Your task to perform on an android device: check data usage Image 0: 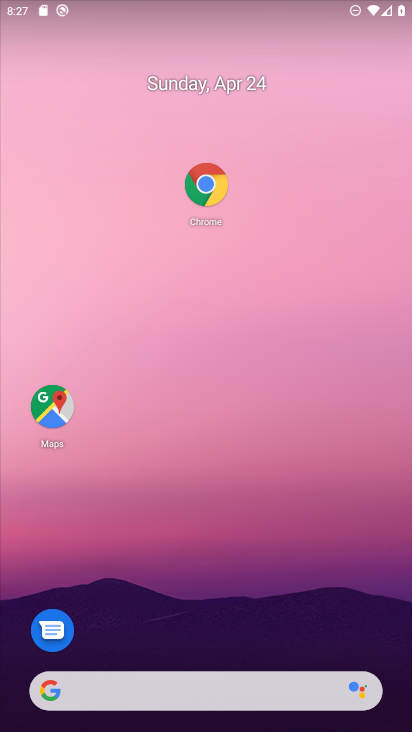
Step 0: click (271, 572)
Your task to perform on an android device: check data usage Image 1: 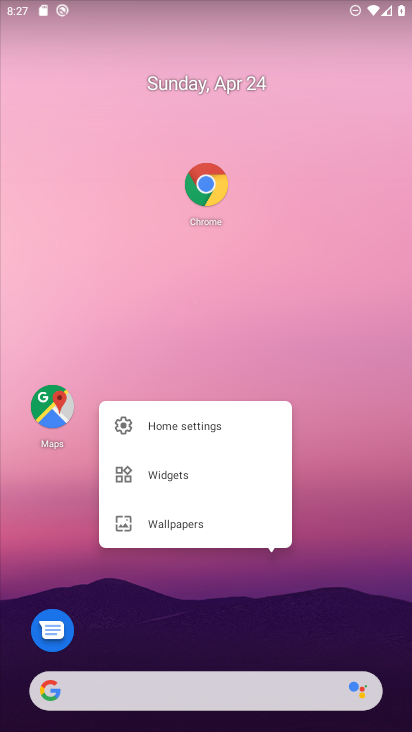
Step 1: drag from (397, 0) to (354, 576)
Your task to perform on an android device: check data usage Image 2: 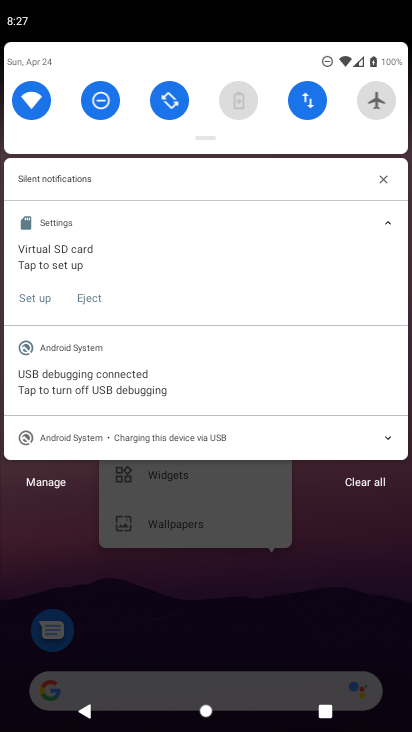
Step 2: drag from (200, 135) to (203, 612)
Your task to perform on an android device: check data usage Image 3: 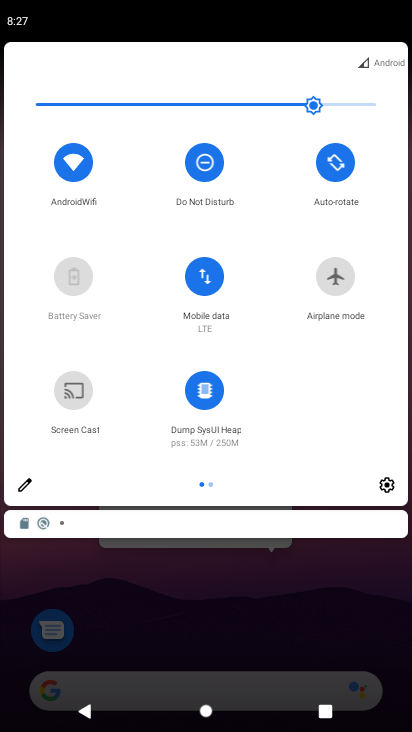
Step 3: click (209, 272)
Your task to perform on an android device: check data usage Image 4: 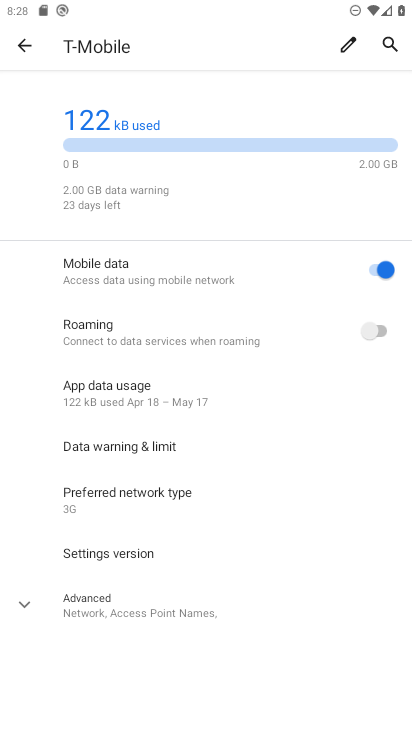
Step 4: task complete